Your task to perform on an android device: open the mobile data screen to see how much data has been used Image 0: 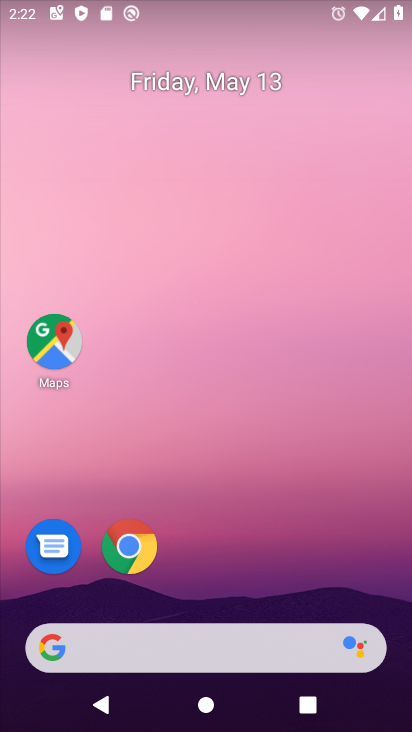
Step 0: drag from (307, 327) to (302, 13)
Your task to perform on an android device: open the mobile data screen to see how much data has been used Image 1: 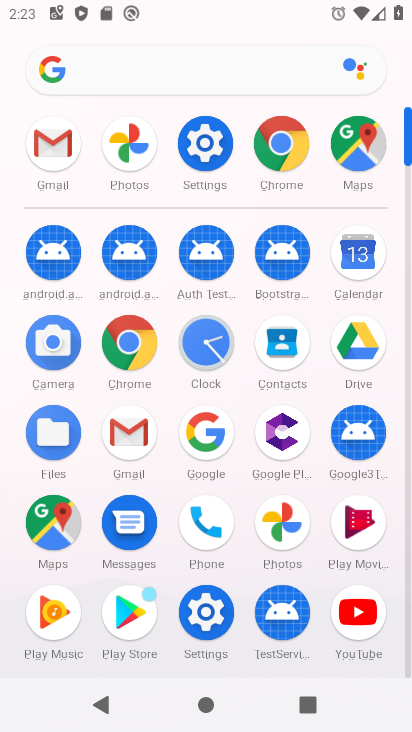
Step 1: click (208, 146)
Your task to perform on an android device: open the mobile data screen to see how much data has been used Image 2: 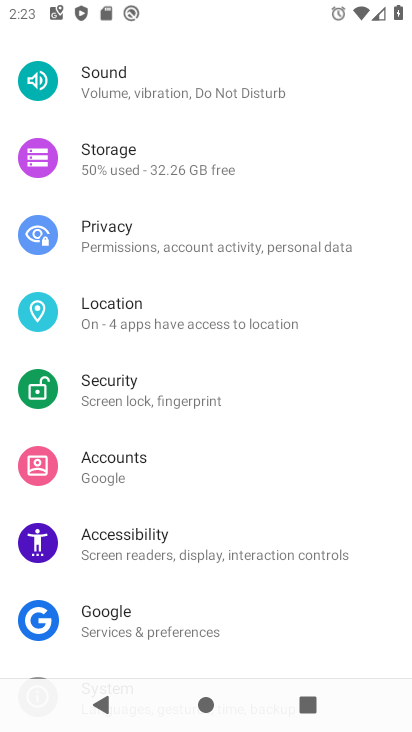
Step 2: drag from (232, 162) to (252, 589)
Your task to perform on an android device: open the mobile data screen to see how much data has been used Image 3: 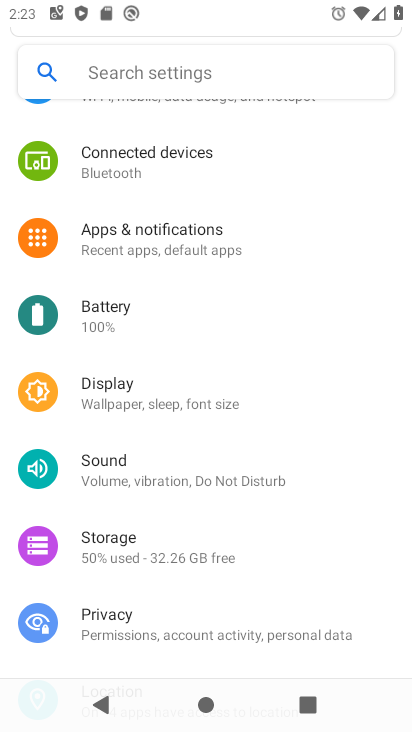
Step 3: drag from (181, 183) to (194, 568)
Your task to perform on an android device: open the mobile data screen to see how much data has been used Image 4: 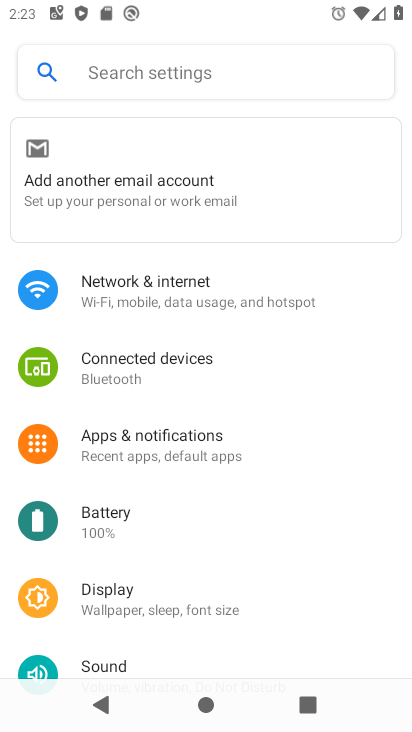
Step 4: click (147, 282)
Your task to perform on an android device: open the mobile data screen to see how much data has been used Image 5: 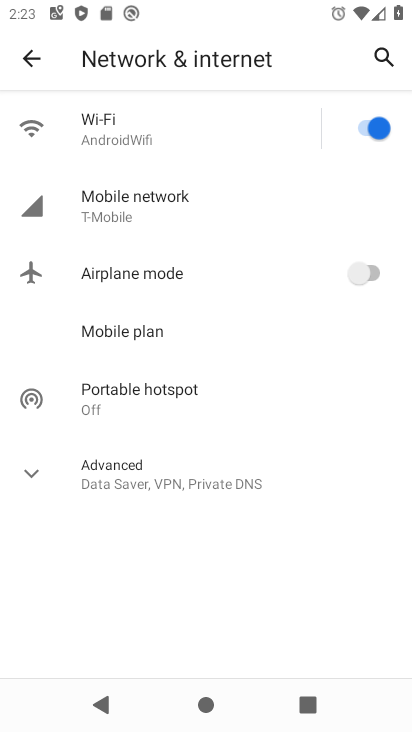
Step 5: click (172, 217)
Your task to perform on an android device: open the mobile data screen to see how much data has been used Image 6: 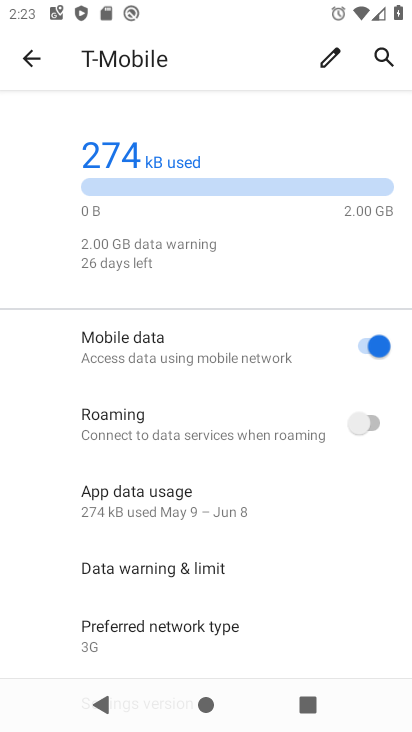
Step 6: click (266, 192)
Your task to perform on an android device: open the mobile data screen to see how much data has been used Image 7: 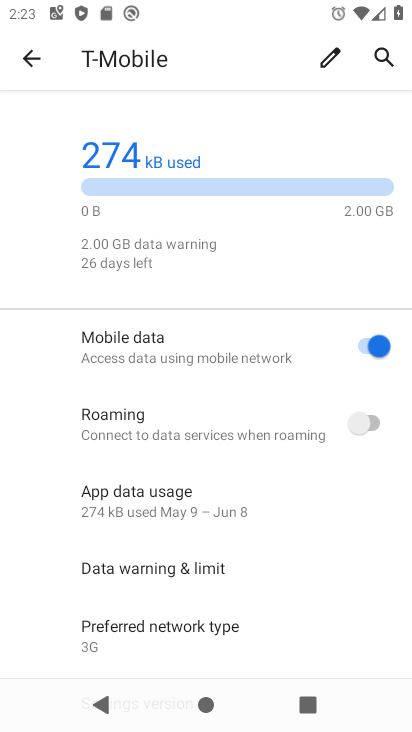
Step 7: task complete